Your task to perform on an android device: Open Google Image 0: 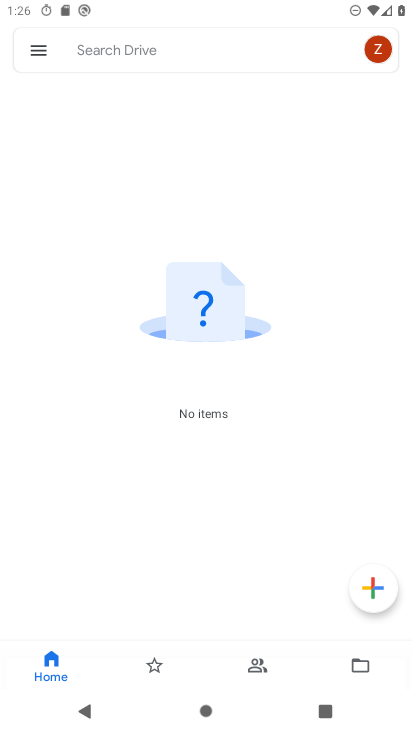
Step 0: press home button
Your task to perform on an android device: Open Google Image 1: 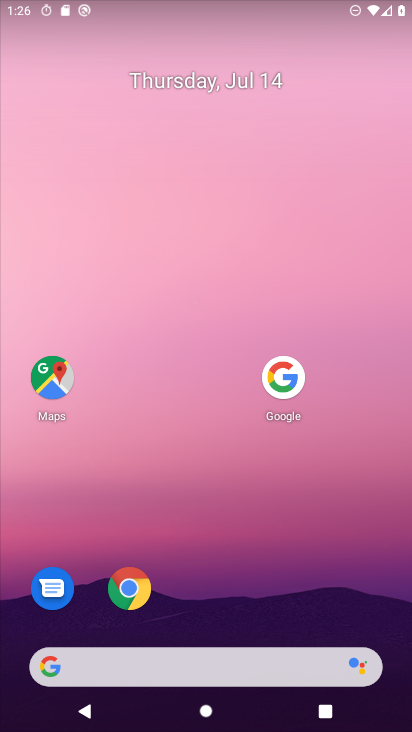
Step 1: click (293, 381)
Your task to perform on an android device: Open Google Image 2: 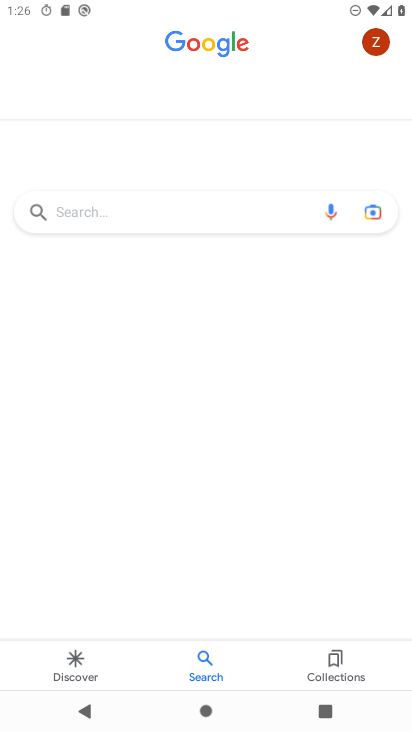
Step 2: task complete